Your task to perform on an android device: Play the last video I watched on Youtube Image 0: 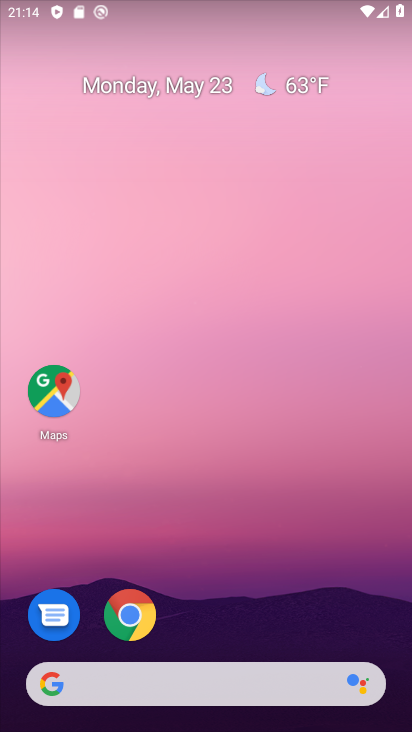
Step 0: drag from (275, 631) to (268, 131)
Your task to perform on an android device: Play the last video I watched on Youtube Image 1: 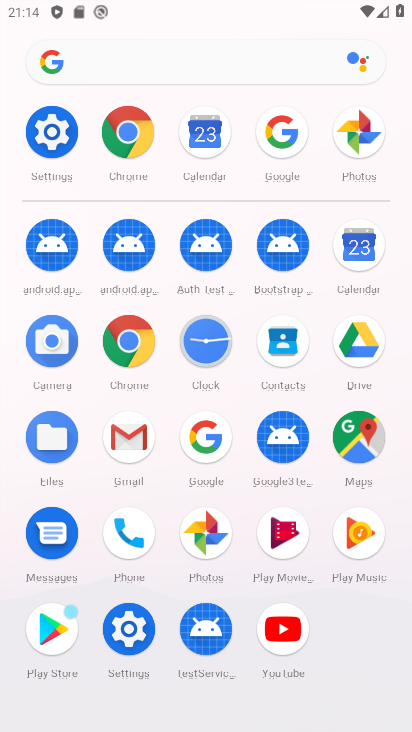
Step 1: click (283, 627)
Your task to perform on an android device: Play the last video I watched on Youtube Image 2: 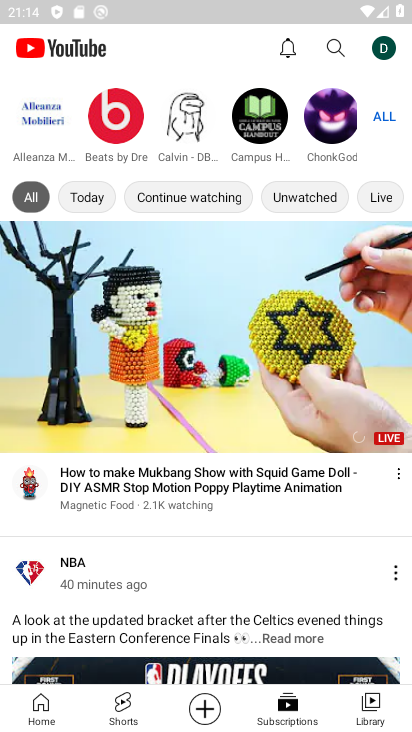
Step 2: click (333, 49)
Your task to perform on an android device: Play the last video I watched on Youtube Image 3: 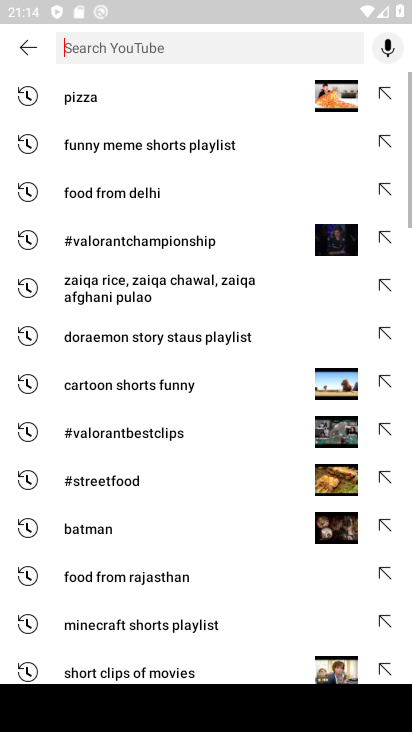
Step 3: click (138, 96)
Your task to perform on an android device: Play the last video I watched on Youtube Image 4: 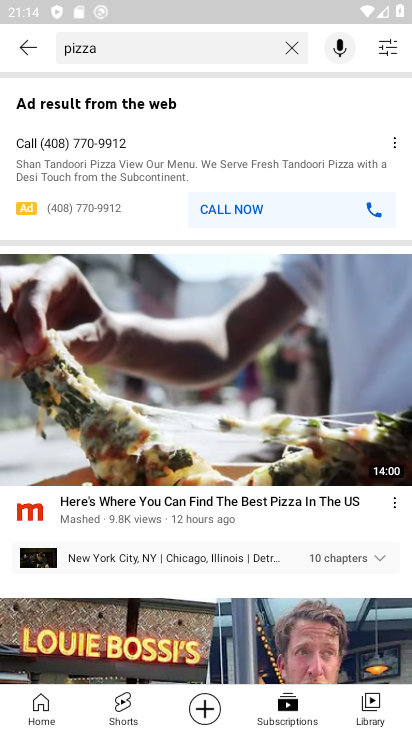
Step 4: click (200, 369)
Your task to perform on an android device: Play the last video I watched on Youtube Image 5: 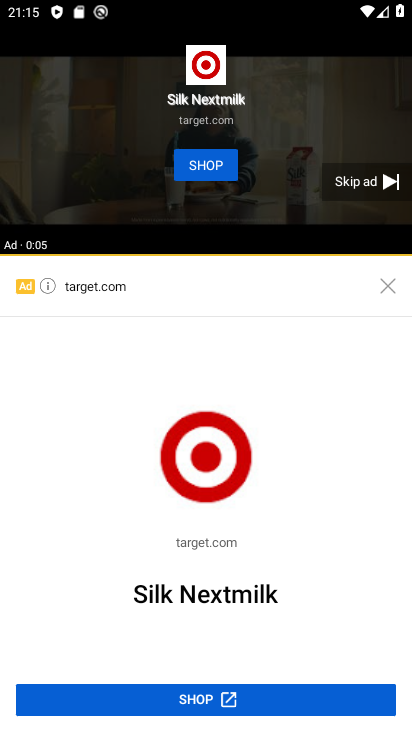
Step 5: click (374, 193)
Your task to perform on an android device: Play the last video I watched on Youtube Image 6: 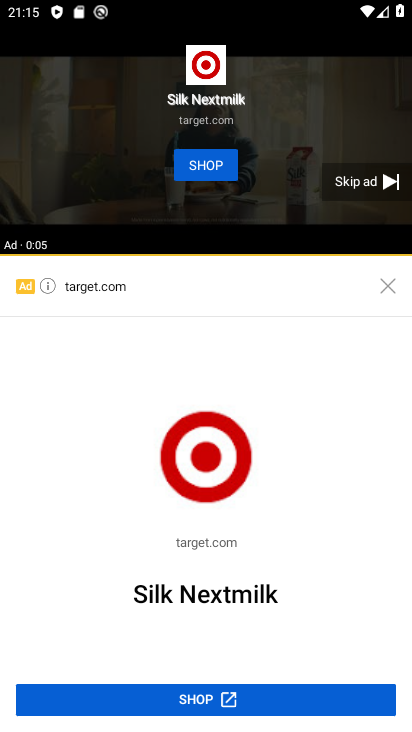
Step 6: click (357, 181)
Your task to perform on an android device: Play the last video I watched on Youtube Image 7: 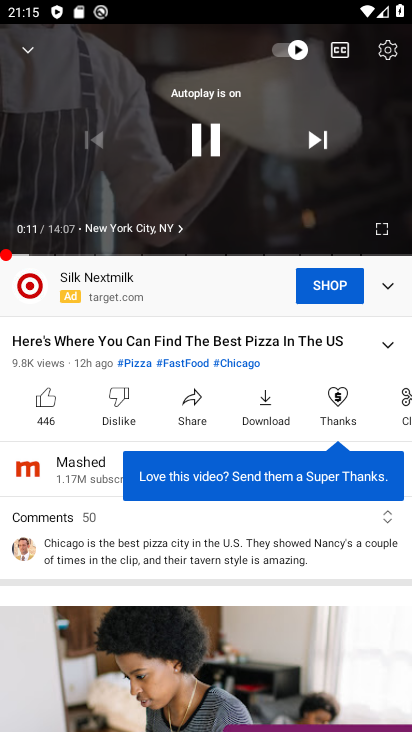
Step 7: task complete